Your task to perform on an android device: turn pop-ups off in chrome Image 0: 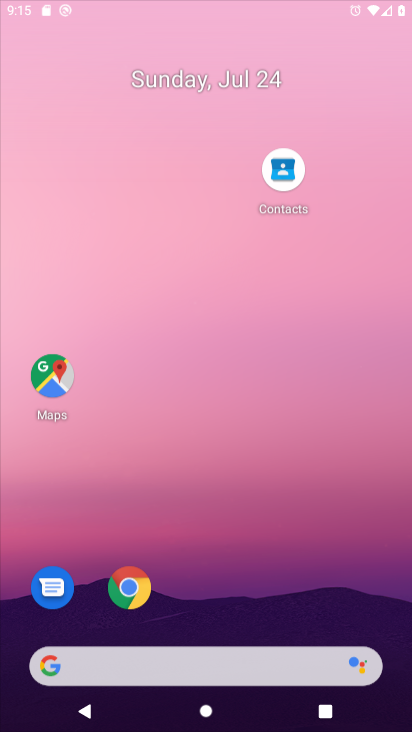
Step 0: press home button
Your task to perform on an android device: turn pop-ups off in chrome Image 1: 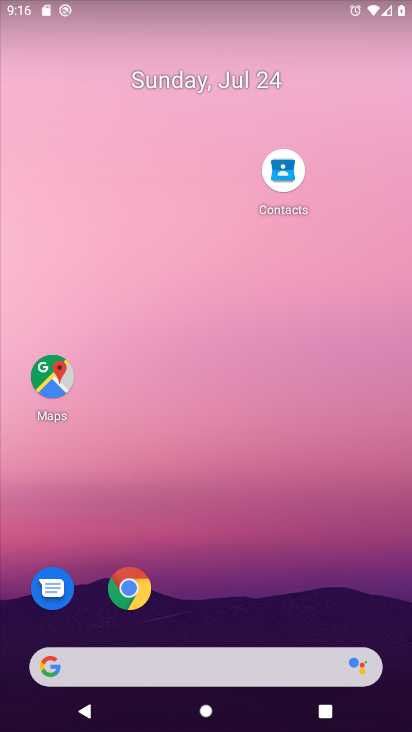
Step 1: click (129, 583)
Your task to perform on an android device: turn pop-ups off in chrome Image 2: 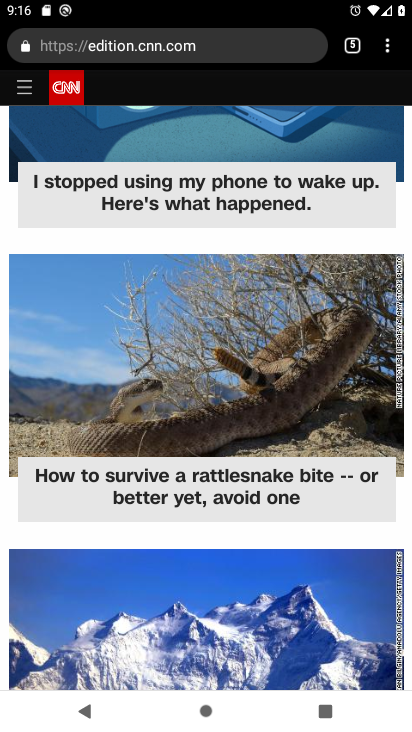
Step 2: click (388, 43)
Your task to perform on an android device: turn pop-ups off in chrome Image 3: 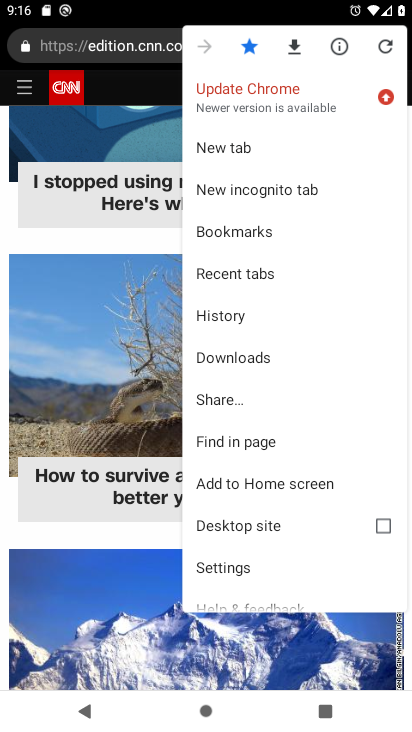
Step 3: click (254, 566)
Your task to perform on an android device: turn pop-ups off in chrome Image 4: 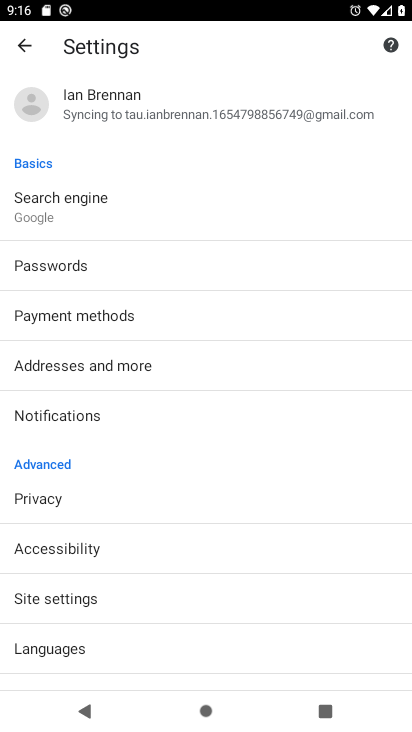
Step 4: click (114, 597)
Your task to perform on an android device: turn pop-ups off in chrome Image 5: 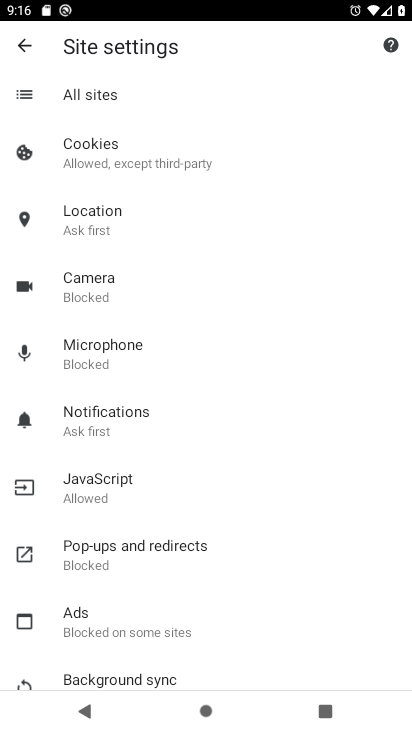
Step 5: click (129, 552)
Your task to perform on an android device: turn pop-ups off in chrome Image 6: 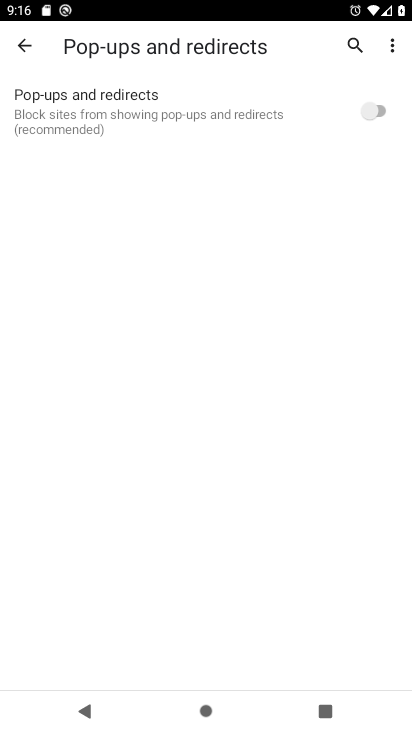
Step 6: task complete